Your task to perform on an android device: What's the weather like in Hong Kong? Image 0: 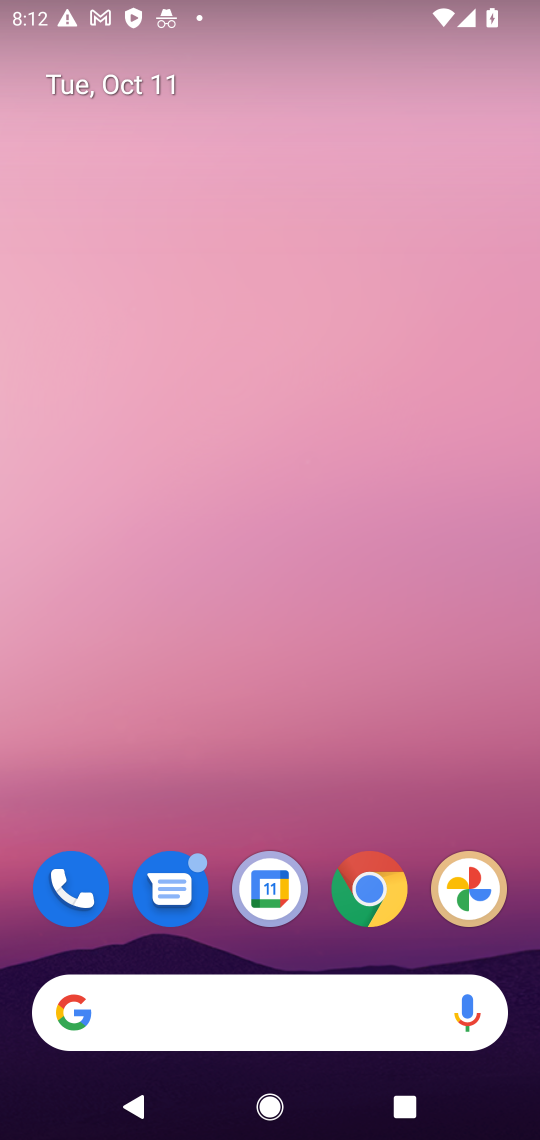
Step 0: click (188, 1016)
Your task to perform on an android device: What's the weather like in Hong Kong? Image 1: 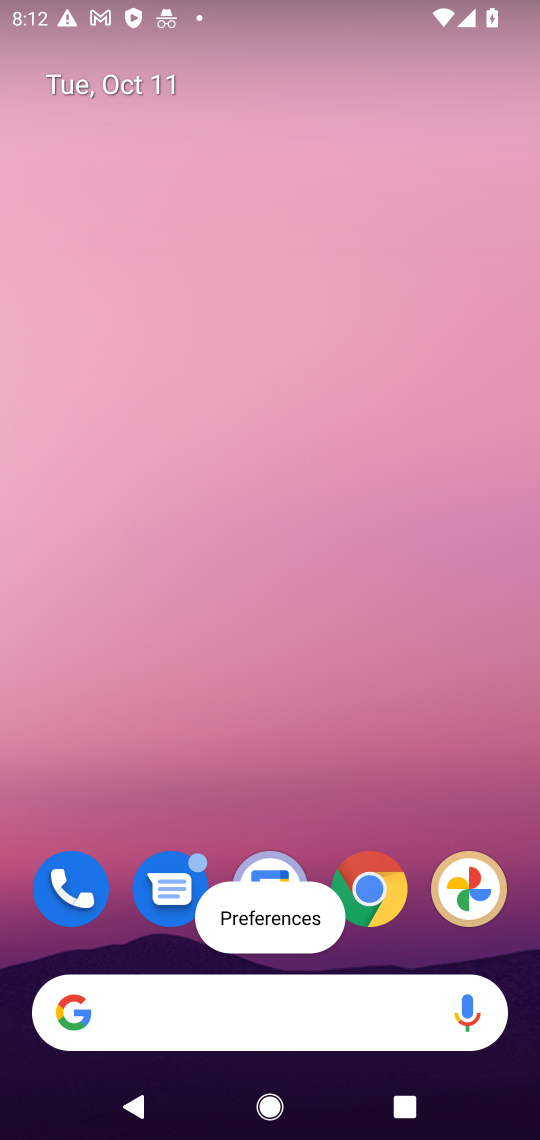
Step 1: click (213, 1029)
Your task to perform on an android device: What's the weather like in Hong Kong? Image 2: 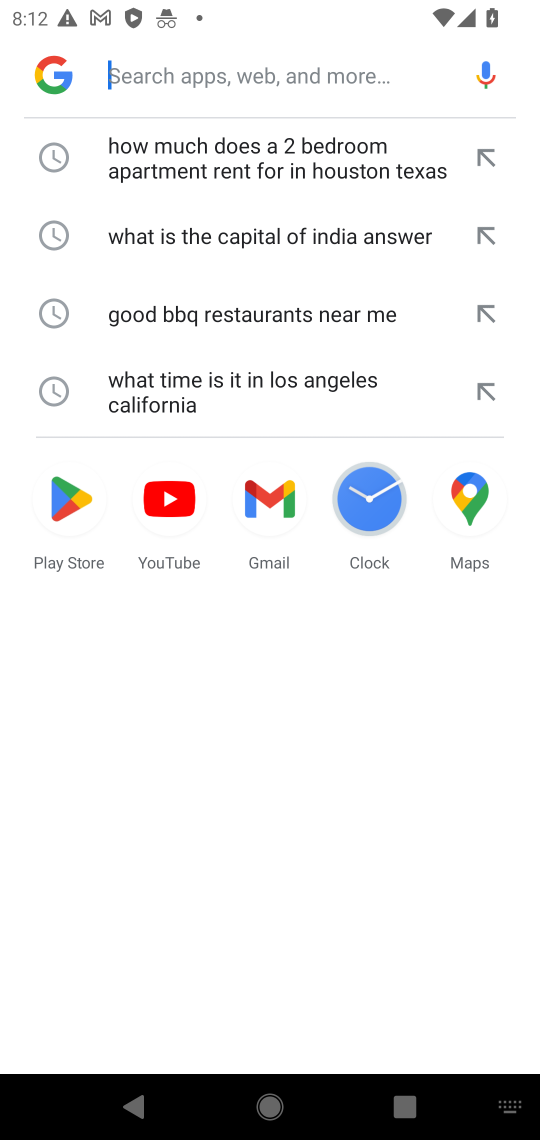
Step 2: click (221, 58)
Your task to perform on an android device: What's the weather like in Hong Kong? Image 3: 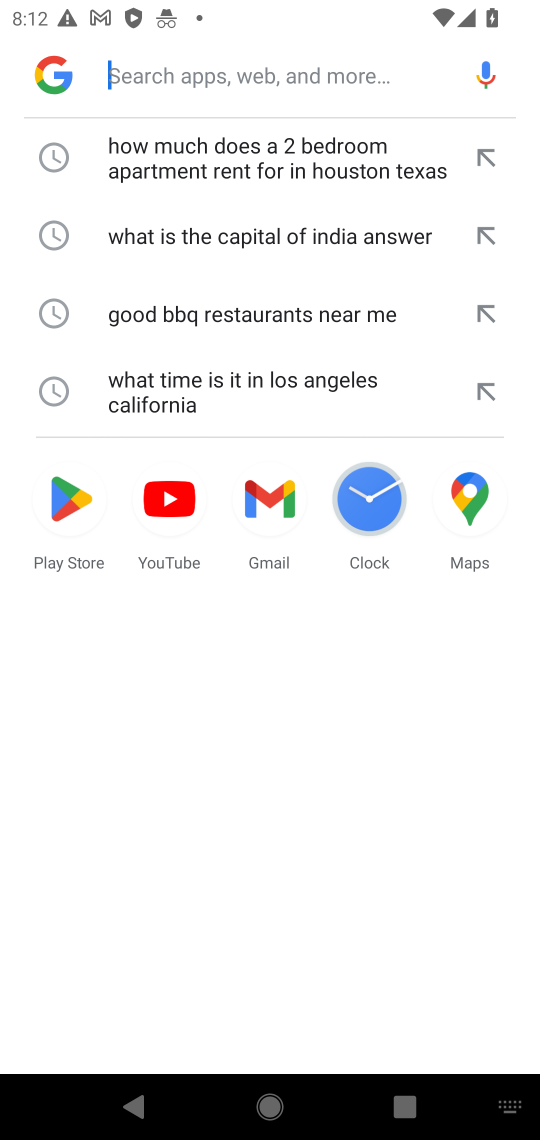
Step 3: type "What's the weather like in Hong Kong?"
Your task to perform on an android device: What's the weather like in Hong Kong? Image 4: 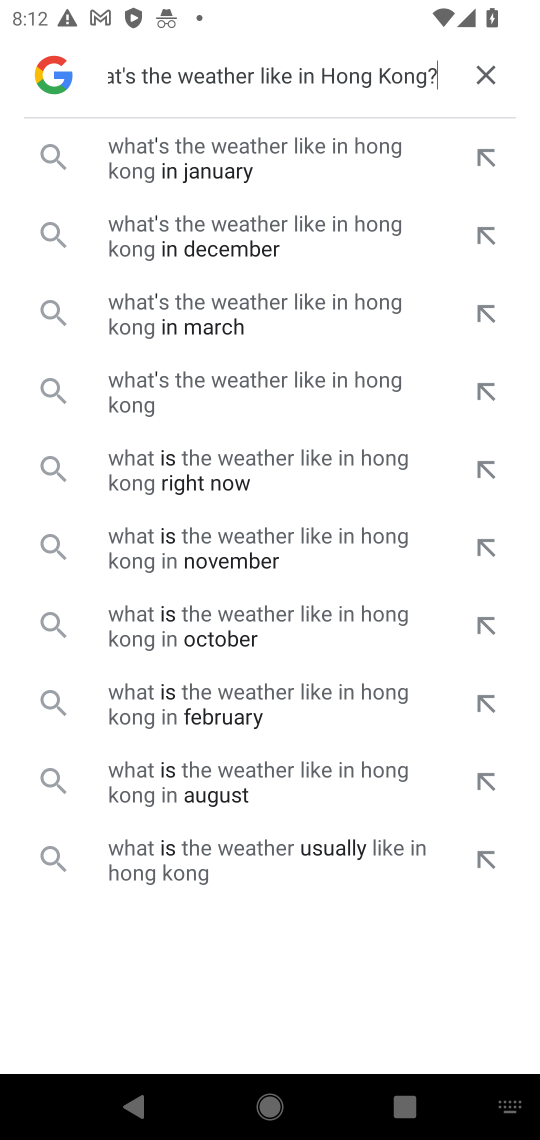
Step 4: click (287, 176)
Your task to perform on an android device: What's the weather like in Hong Kong? Image 5: 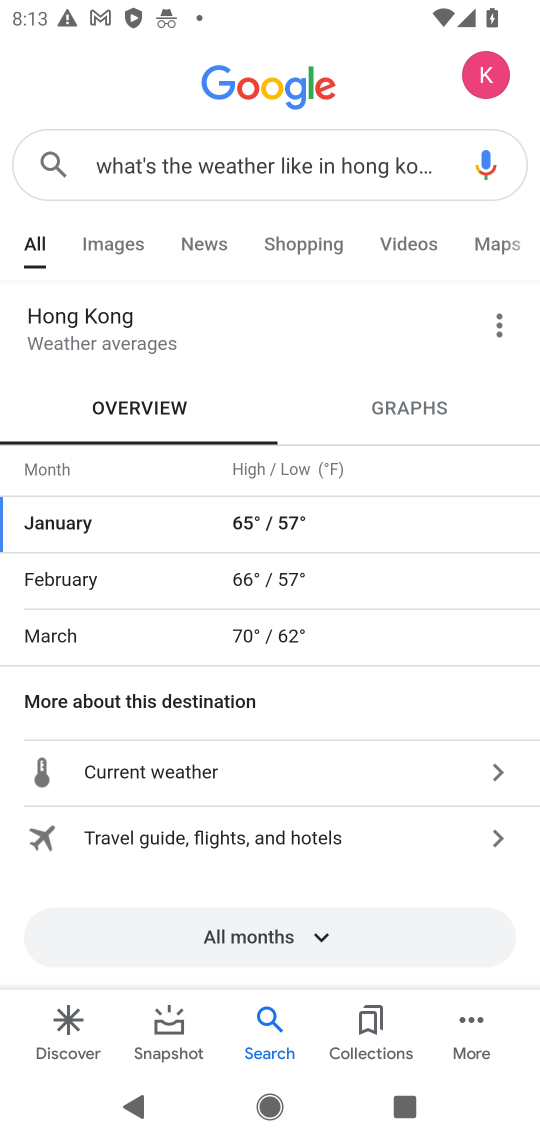
Step 5: task complete